Your task to perform on an android device: See recent photos Image 0: 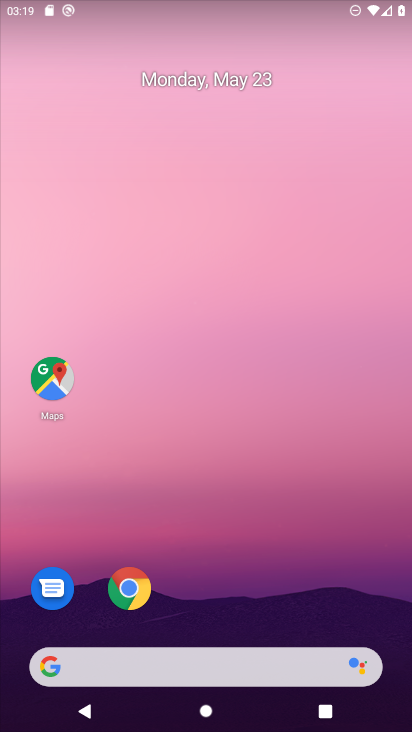
Step 0: drag from (227, 719) to (254, 3)
Your task to perform on an android device: See recent photos Image 1: 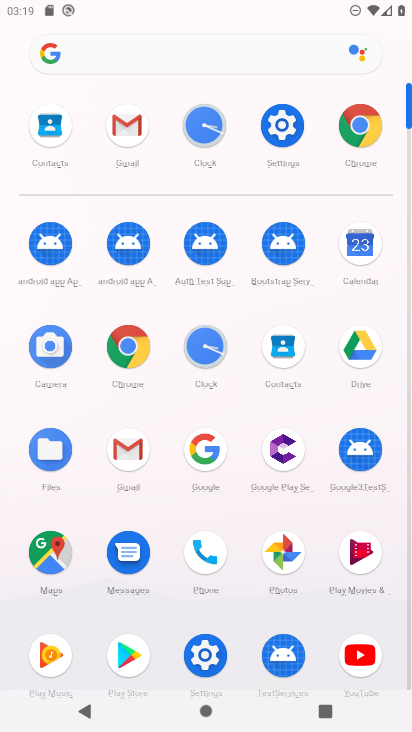
Step 1: click (288, 550)
Your task to perform on an android device: See recent photos Image 2: 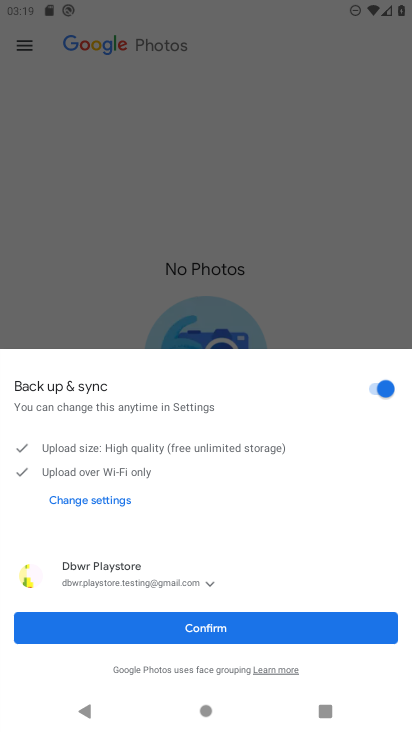
Step 2: click (209, 632)
Your task to perform on an android device: See recent photos Image 3: 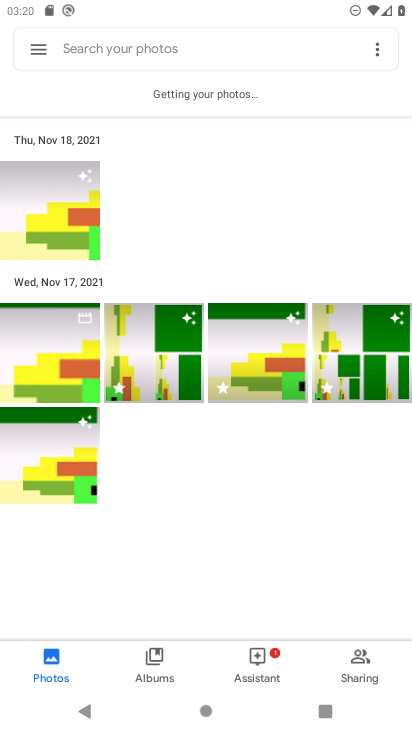
Step 3: click (43, 230)
Your task to perform on an android device: See recent photos Image 4: 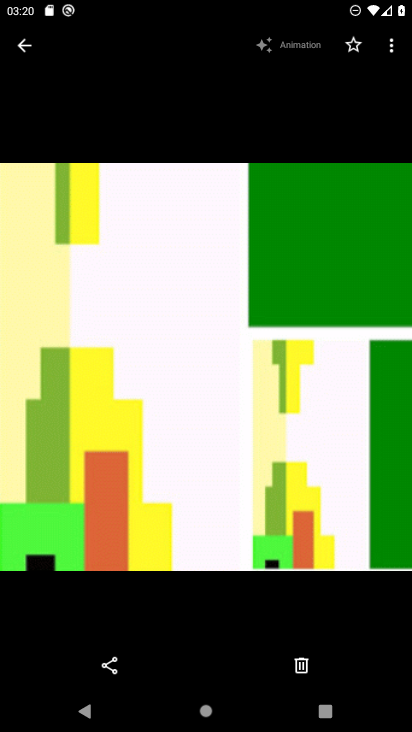
Step 4: task complete